Your task to perform on an android device: Open privacy settings Image 0: 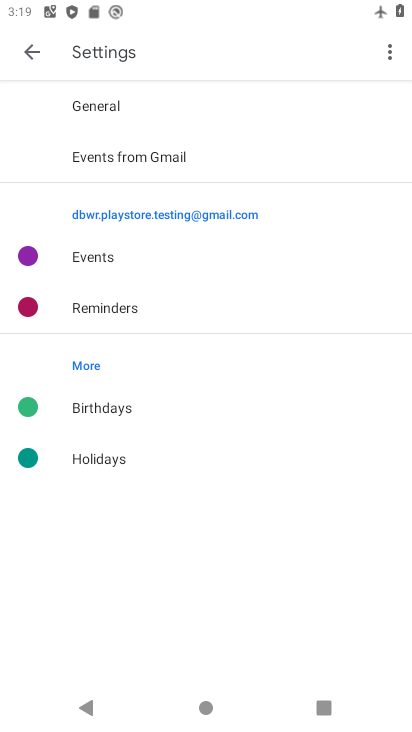
Step 0: press home button
Your task to perform on an android device: Open privacy settings Image 1: 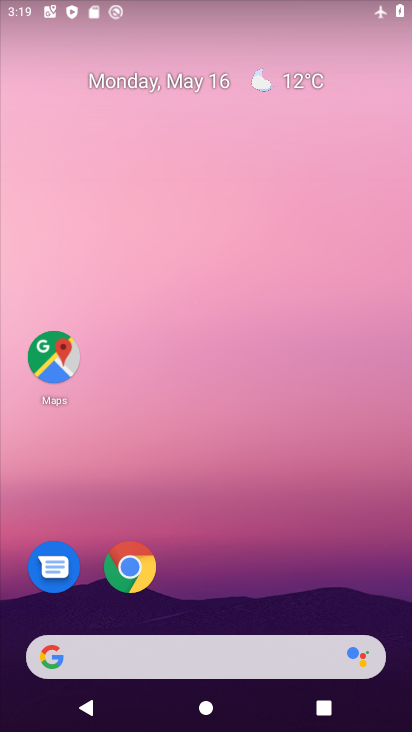
Step 1: drag from (205, 535) to (290, 32)
Your task to perform on an android device: Open privacy settings Image 2: 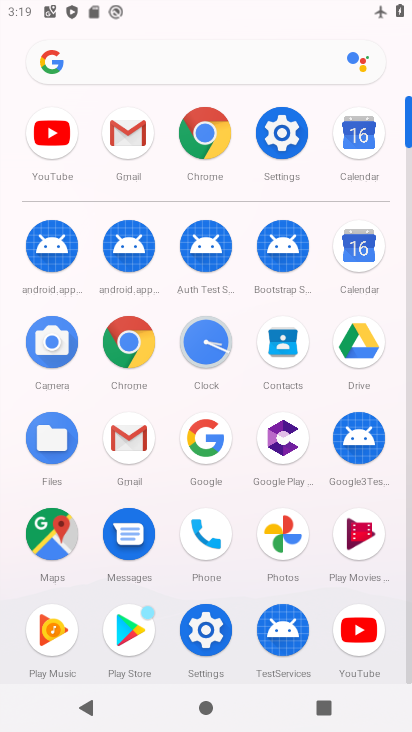
Step 2: click (282, 125)
Your task to perform on an android device: Open privacy settings Image 3: 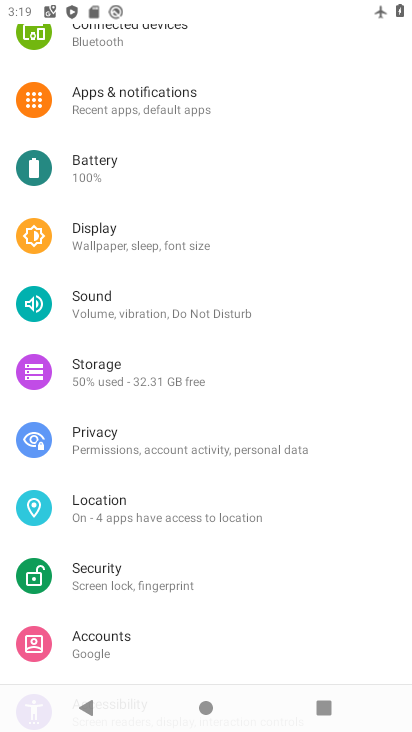
Step 3: click (117, 446)
Your task to perform on an android device: Open privacy settings Image 4: 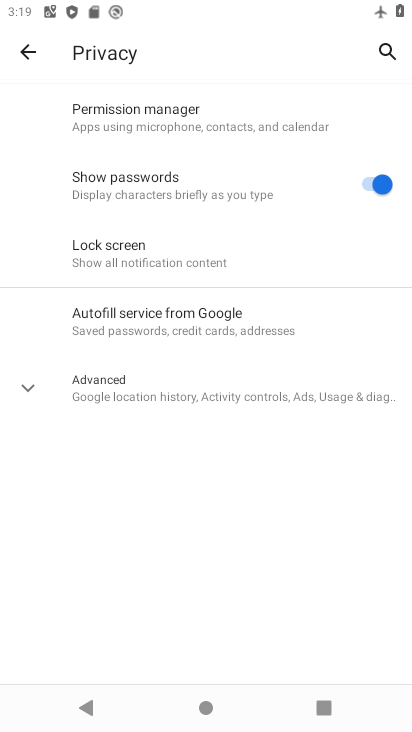
Step 4: task complete